Your task to perform on an android device: all mails in gmail Image 0: 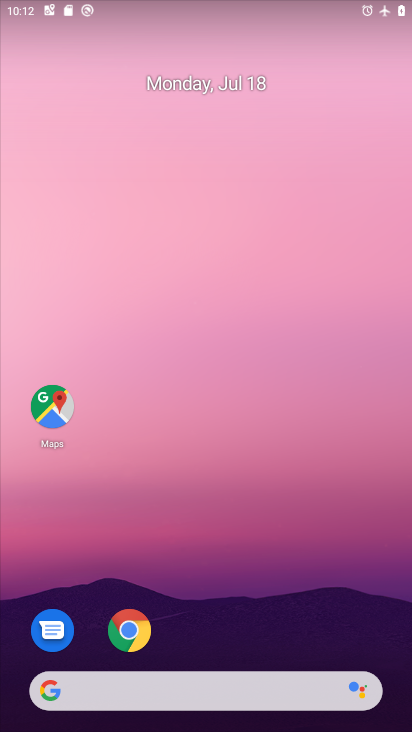
Step 0: drag from (223, 629) to (239, 201)
Your task to perform on an android device: all mails in gmail Image 1: 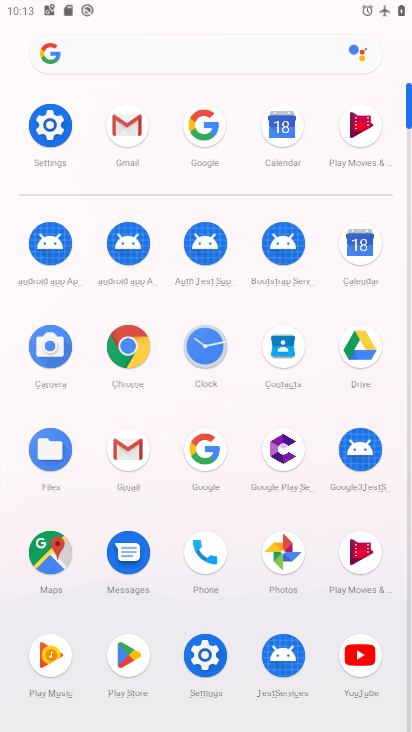
Step 1: click (133, 117)
Your task to perform on an android device: all mails in gmail Image 2: 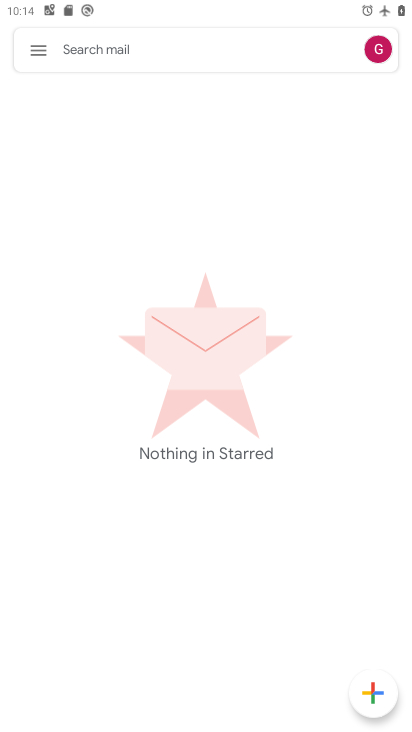
Step 2: click (42, 54)
Your task to perform on an android device: all mails in gmail Image 3: 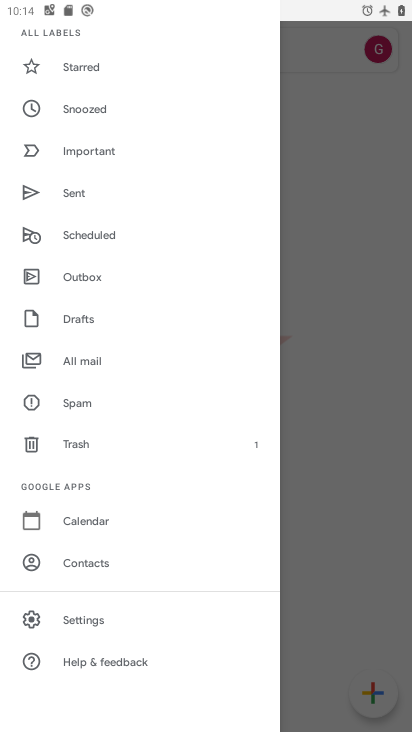
Step 3: click (94, 367)
Your task to perform on an android device: all mails in gmail Image 4: 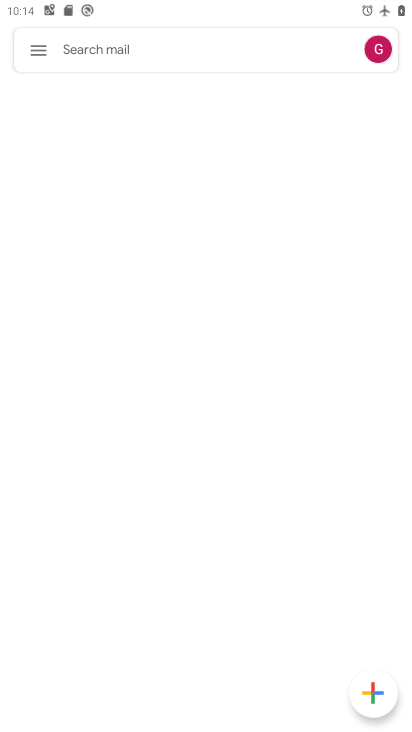
Step 4: task complete